Your task to perform on an android device: Turn off the flashlight Image 0: 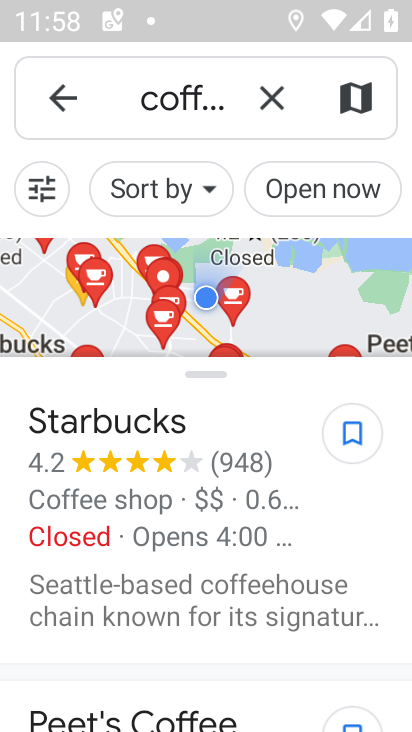
Step 0: press home button
Your task to perform on an android device: Turn off the flashlight Image 1: 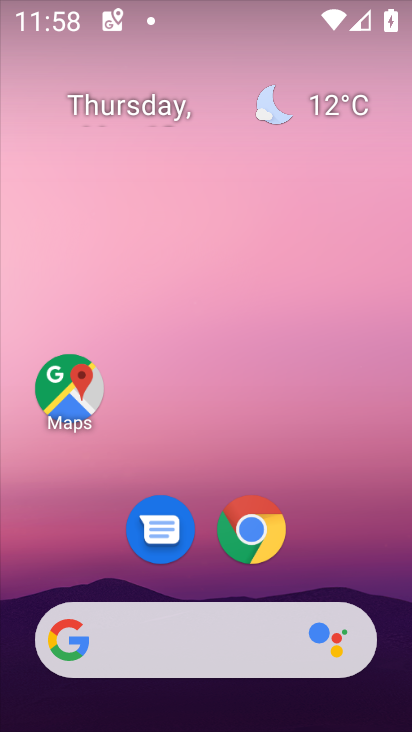
Step 1: drag from (346, 540) to (308, 191)
Your task to perform on an android device: Turn off the flashlight Image 2: 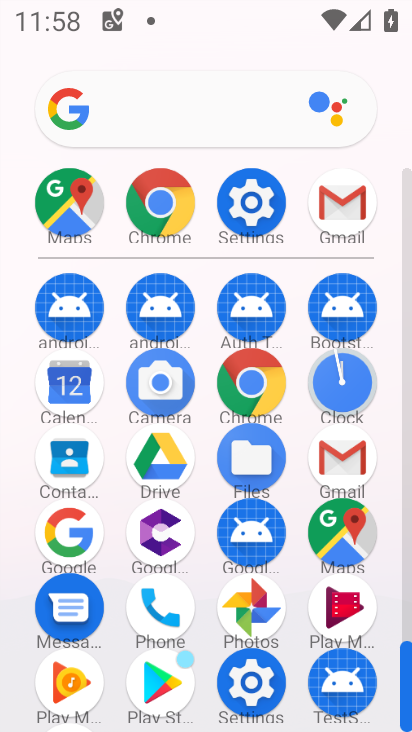
Step 2: click (250, 194)
Your task to perform on an android device: Turn off the flashlight Image 3: 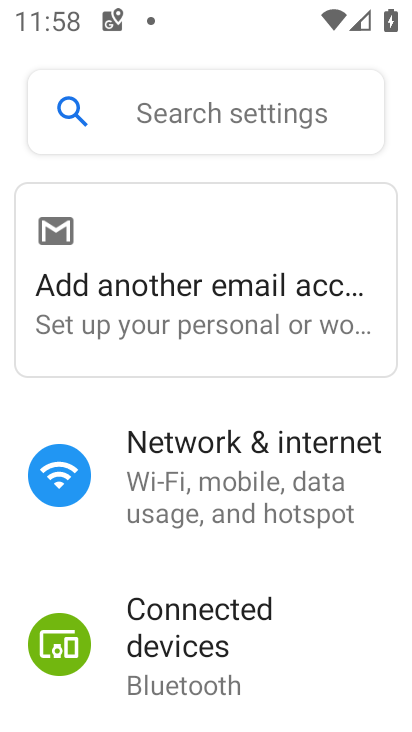
Step 3: task complete